Your task to perform on an android device: turn off notifications in google photos Image 0: 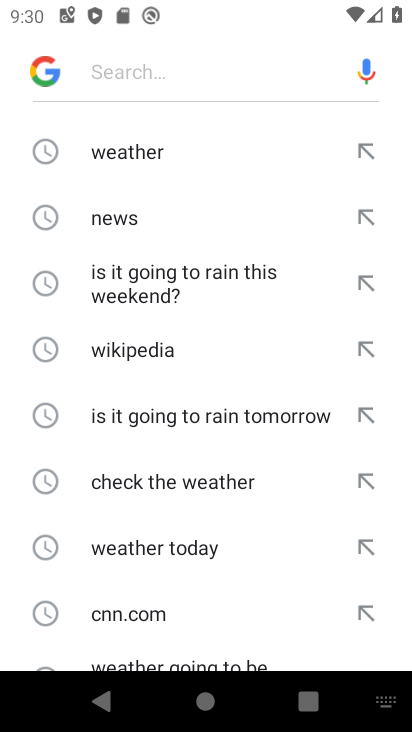
Step 0: press home button
Your task to perform on an android device: turn off notifications in google photos Image 1: 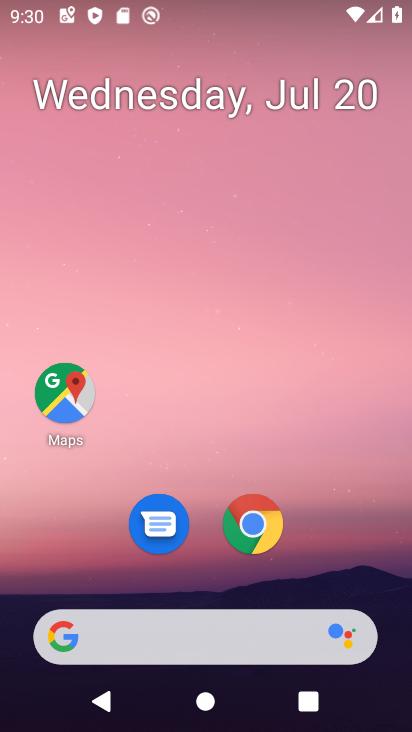
Step 1: drag from (217, 582) to (291, 126)
Your task to perform on an android device: turn off notifications in google photos Image 2: 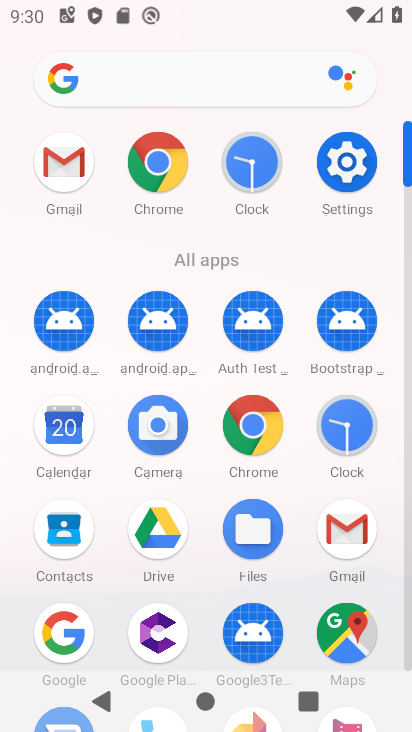
Step 2: drag from (197, 508) to (266, 218)
Your task to perform on an android device: turn off notifications in google photos Image 3: 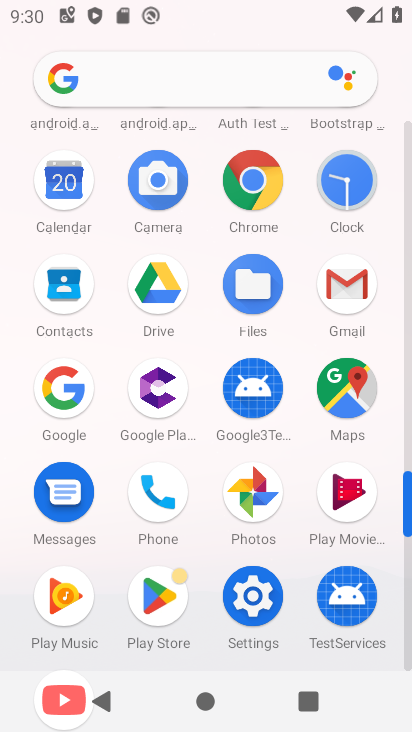
Step 3: click (263, 494)
Your task to perform on an android device: turn off notifications in google photos Image 4: 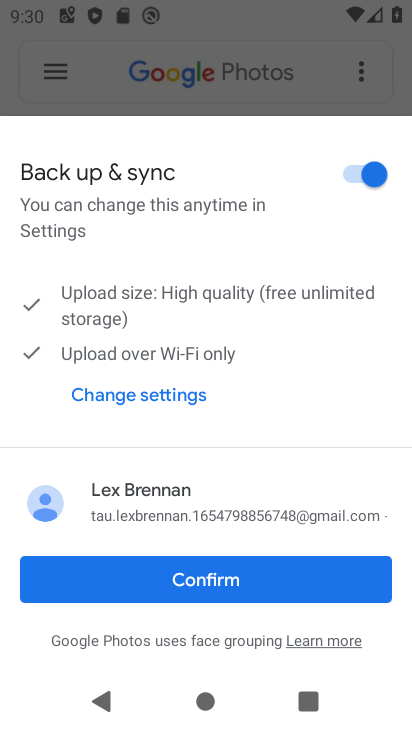
Step 4: click (201, 583)
Your task to perform on an android device: turn off notifications in google photos Image 5: 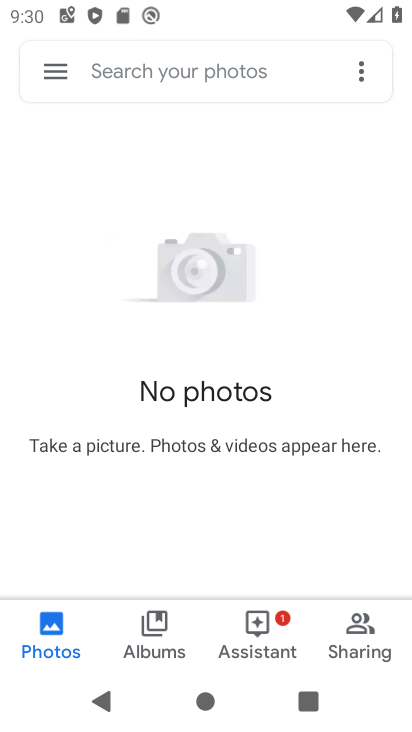
Step 5: click (60, 71)
Your task to perform on an android device: turn off notifications in google photos Image 6: 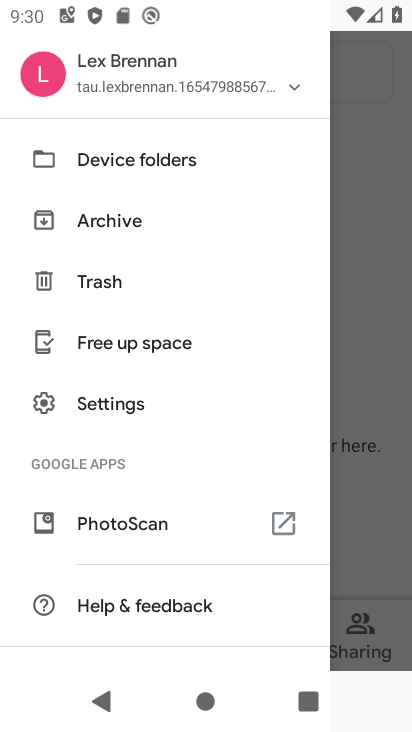
Step 6: click (124, 405)
Your task to perform on an android device: turn off notifications in google photos Image 7: 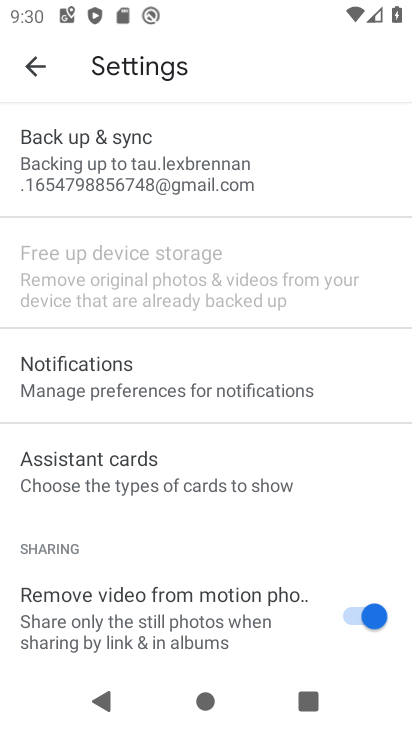
Step 7: click (149, 369)
Your task to perform on an android device: turn off notifications in google photos Image 8: 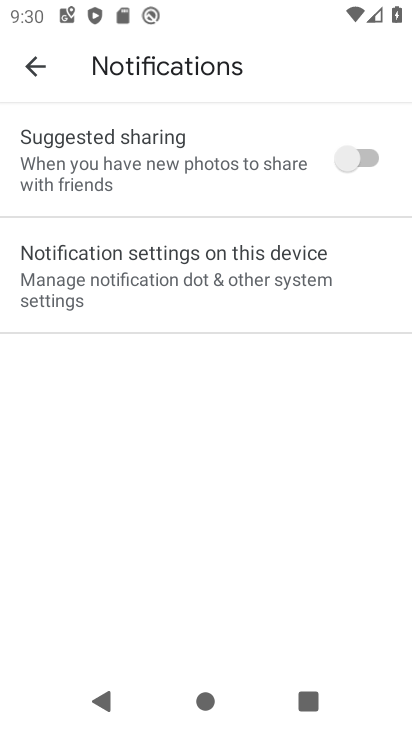
Step 8: click (216, 292)
Your task to perform on an android device: turn off notifications in google photos Image 9: 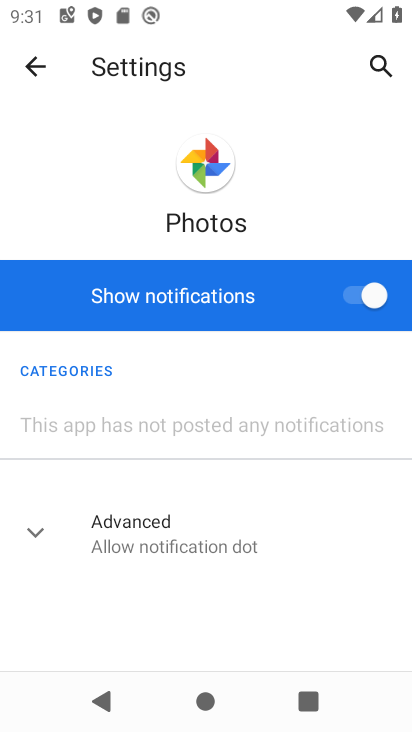
Step 9: click (354, 297)
Your task to perform on an android device: turn off notifications in google photos Image 10: 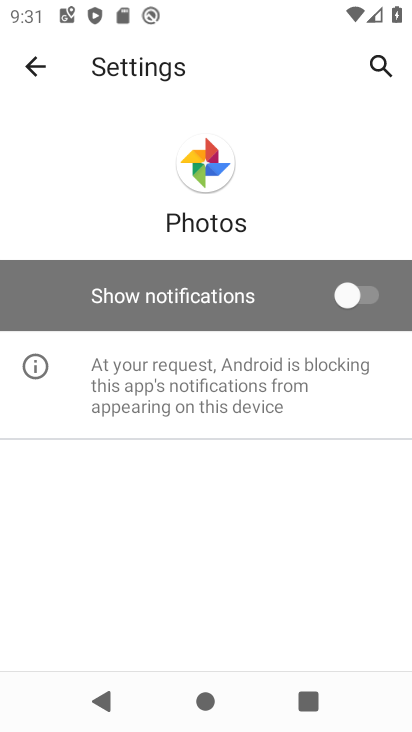
Step 10: task complete